Your task to perform on an android device: Go to battery settings Image 0: 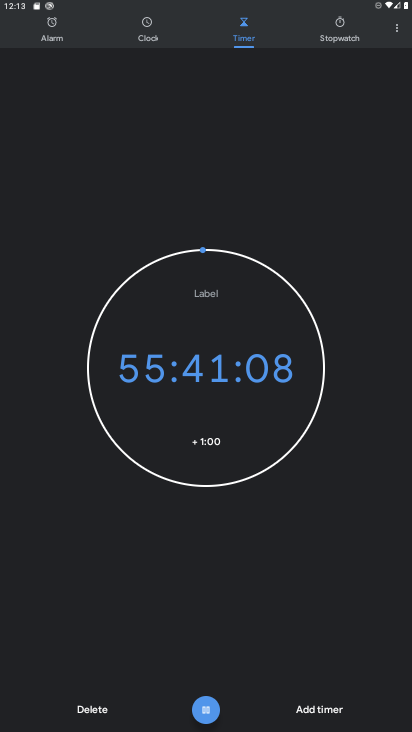
Step 0: press home button
Your task to perform on an android device: Go to battery settings Image 1: 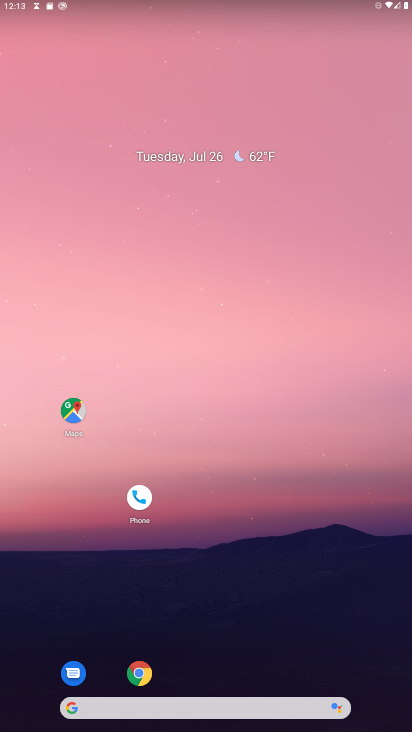
Step 1: drag from (242, 580) to (82, 4)
Your task to perform on an android device: Go to battery settings Image 2: 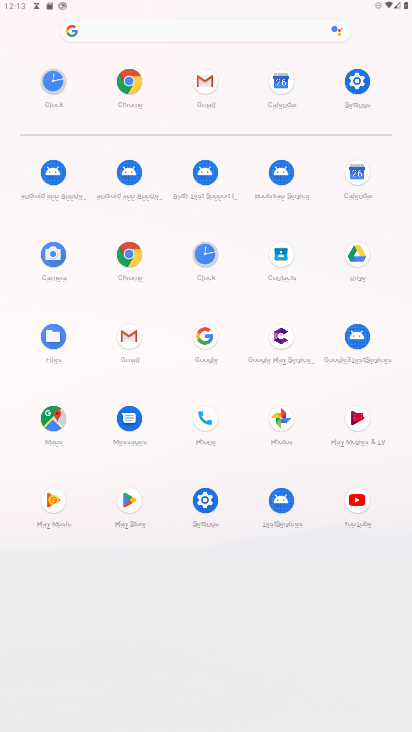
Step 2: click (354, 85)
Your task to perform on an android device: Go to battery settings Image 3: 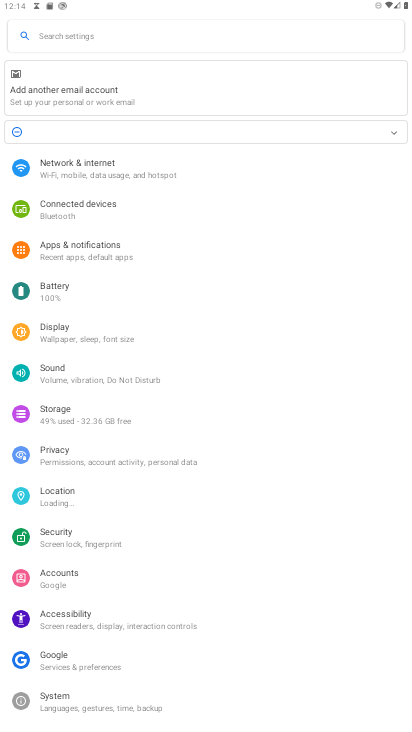
Step 3: click (52, 289)
Your task to perform on an android device: Go to battery settings Image 4: 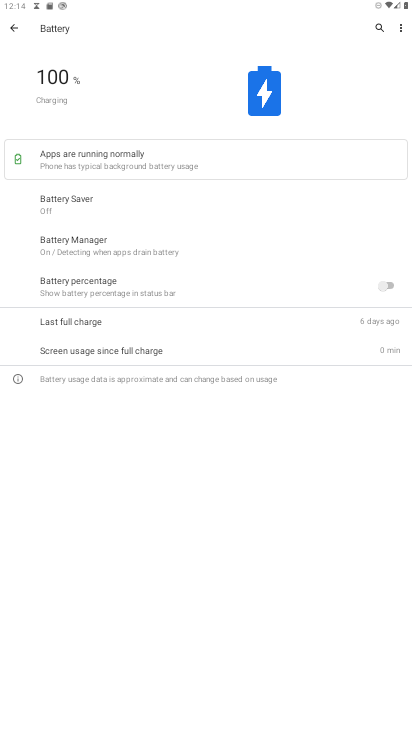
Step 4: task complete